Your task to perform on an android device: turn off location Image 0: 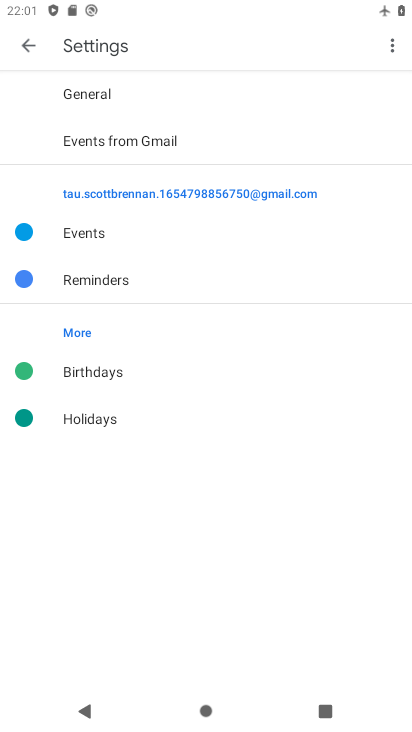
Step 0: press home button
Your task to perform on an android device: turn off location Image 1: 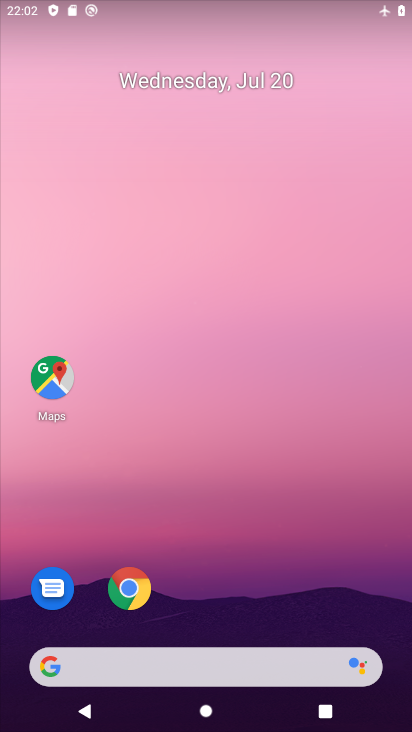
Step 1: drag from (368, 639) to (296, 24)
Your task to perform on an android device: turn off location Image 2: 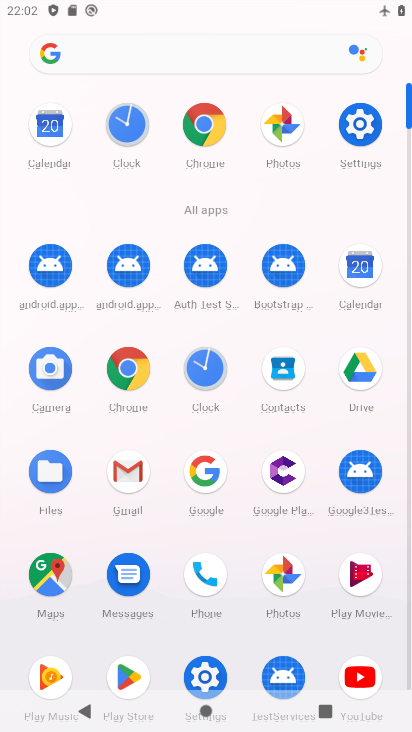
Step 2: click (203, 676)
Your task to perform on an android device: turn off location Image 3: 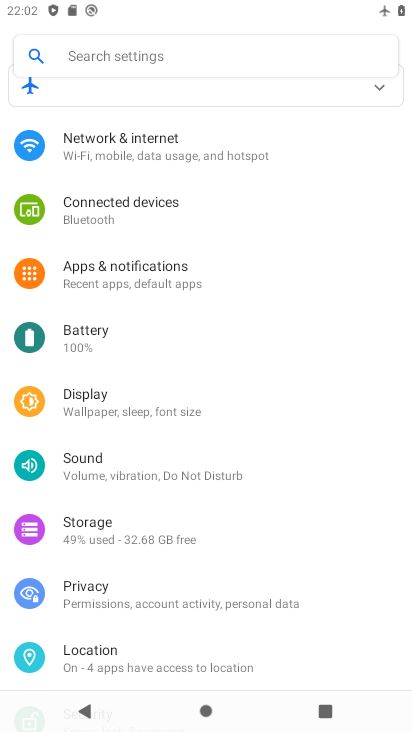
Step 3: drag from (156, 648) to (221, 277)
Your task to perform on an android device: turn off location Image 4: 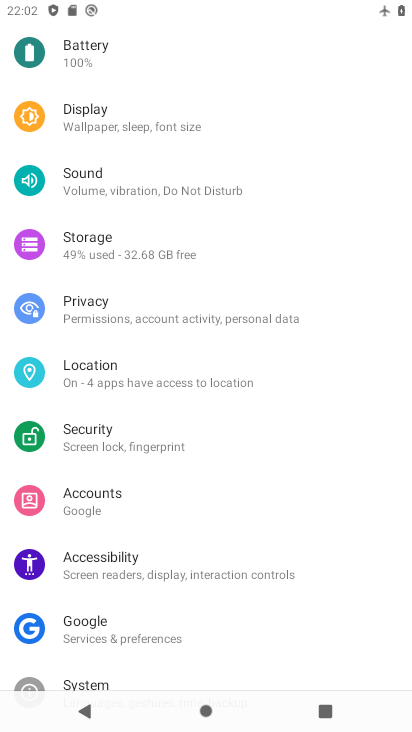
Step 4: click (98, 362)
Your task to perform on an android device: turn off location Image 5: 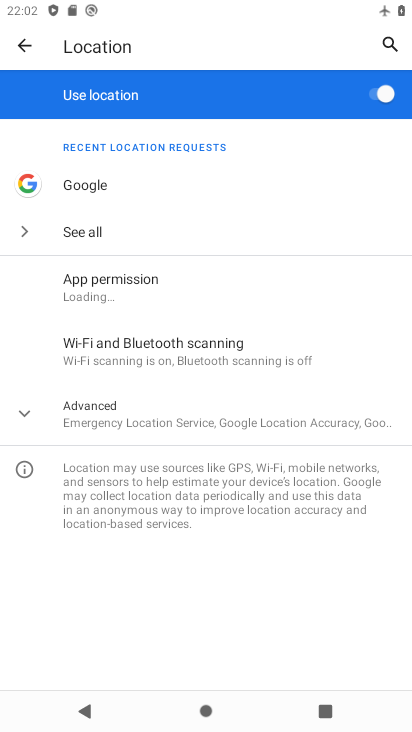
Step 5: click (18, 417)
Your task to perform on an android device: turn off location Image 6: 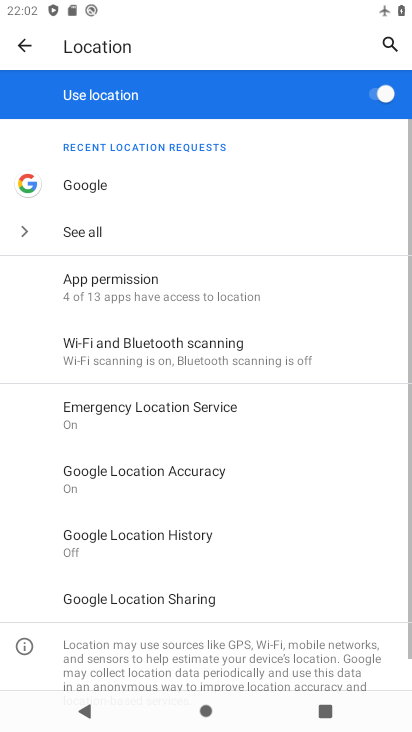
Step 6: click (370, 92)
Your task to perform on an android device: turn off location Image 7: 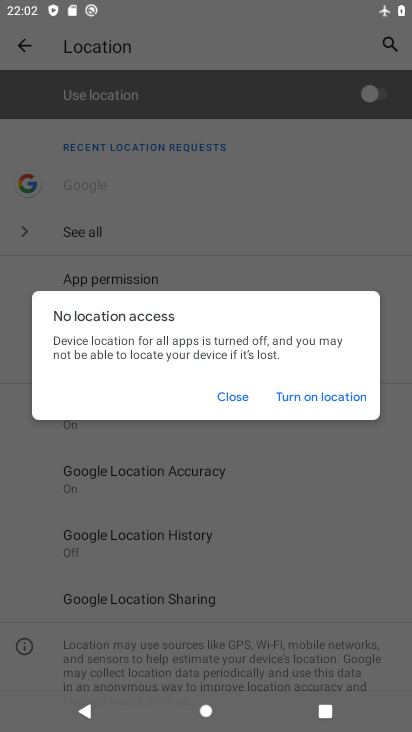
Step 7: task complete